Your task to perform on an android device: Go to network settings Image 0: 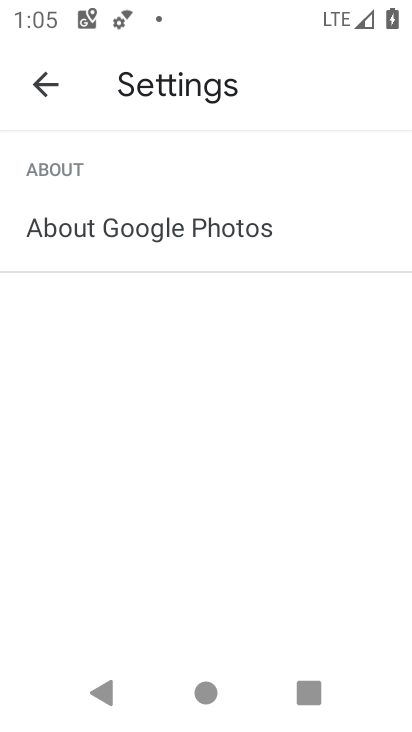
Step 0: press home button
Your task to perform on an android device: Go to network settings Image 1: 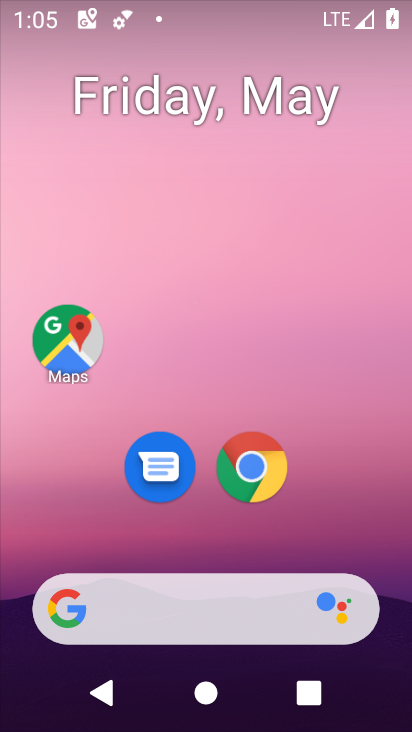
Step 1: drag from (334, 458) to (346, 83)
Your task to perform on an android device: Go to network settings Image 2: 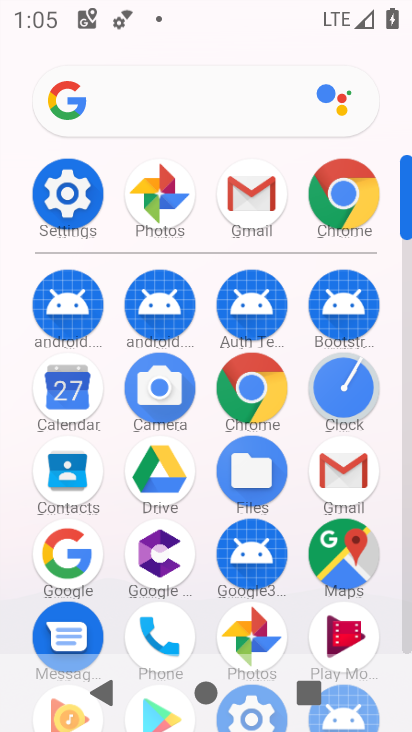
Step 2: click (65, 191)
Your task to perform on an android device: Go to network settings Image 3: 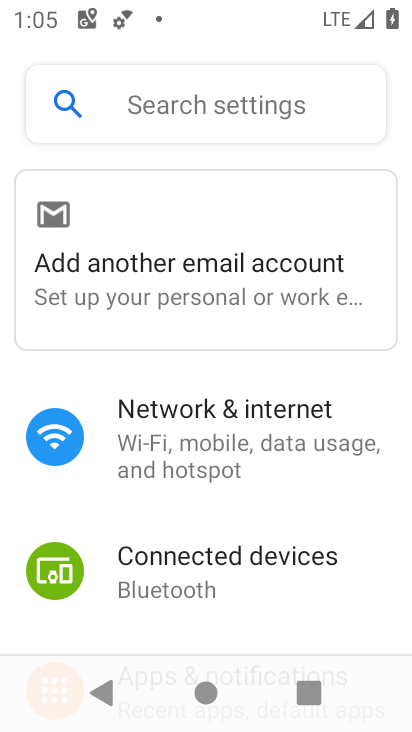
Step 3: click (165, 421)
Your task to perform on an android device: Go to network settings Image 4: 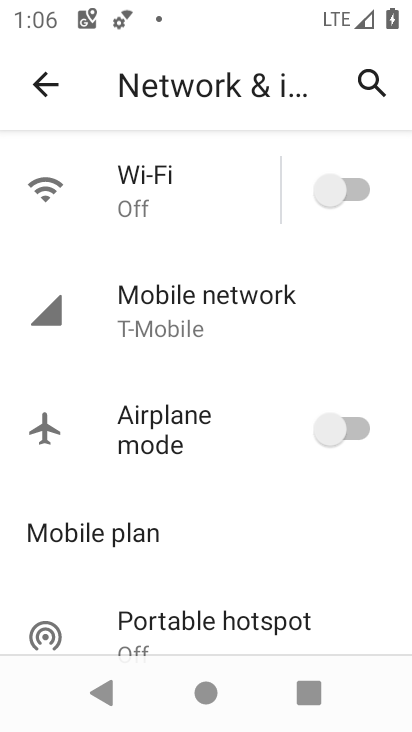
Step 4: task complete